Your task to perform on an android device: Open Wikipedia Image 0: 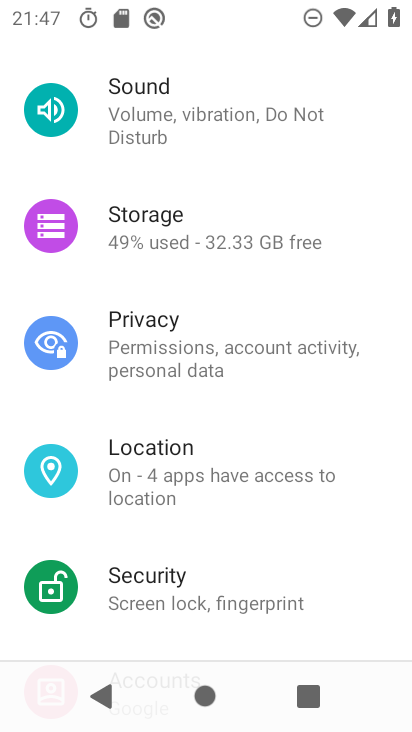
Step 0: press home button
Your task to perform on an android device: Open Wikipedia Image 1: 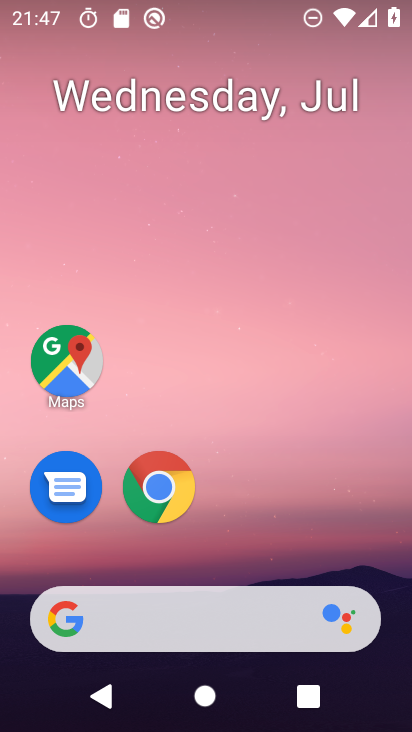
Step 1: drag from (329, 509) to (347, 58)
Your task to perform on an android device: Open Wikipedia Image 2: 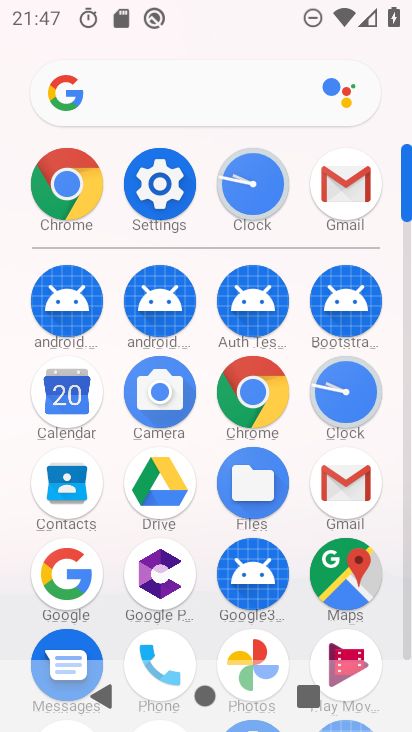
Step 2: click (263, 393)
Your task to perform on an android device: Open Wikipedia Image 3: 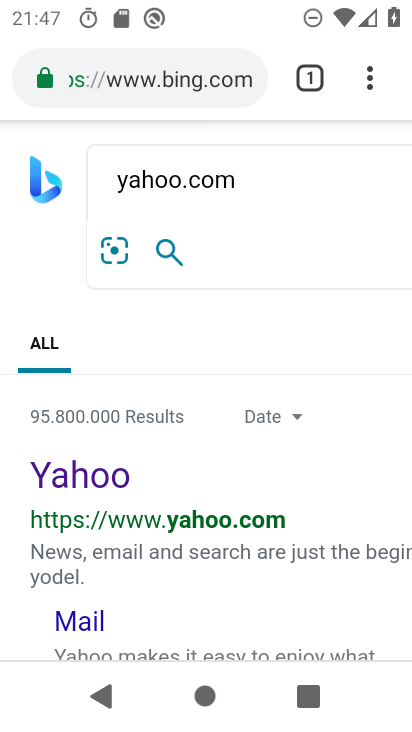
Step 3: click (203, 67)
Your task to perform on an android device: Open Wikipedia Image 4: 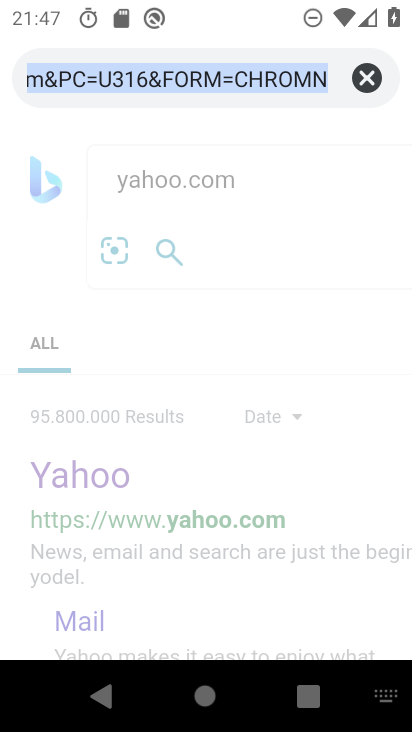
Step 4: type "wikipedia"
Your task to perform on an android device: Open Wikipedia Image 5: 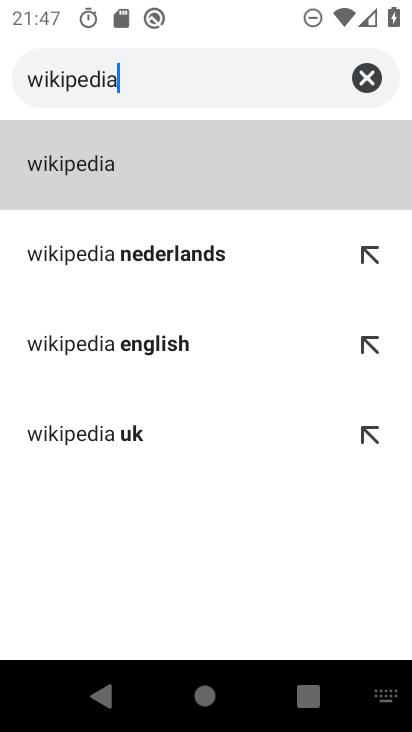
Step 5: click (273, 172)
Your task to perform on an android device: Open Wikipedia Image 6: 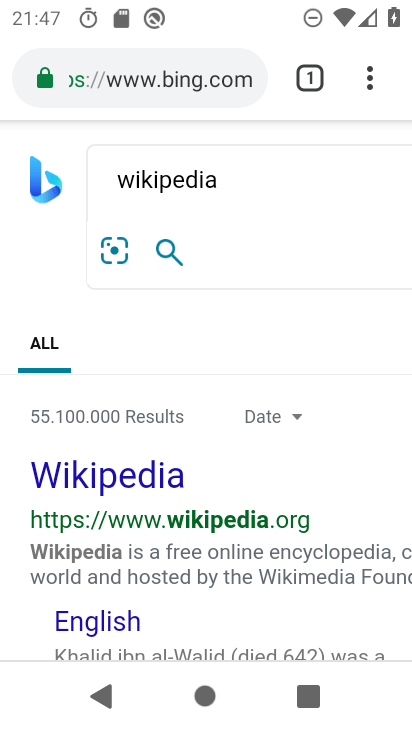
Step 6: task complete